Your task to perform on an android device: turn off priority inbox in the gmail app Image 0: 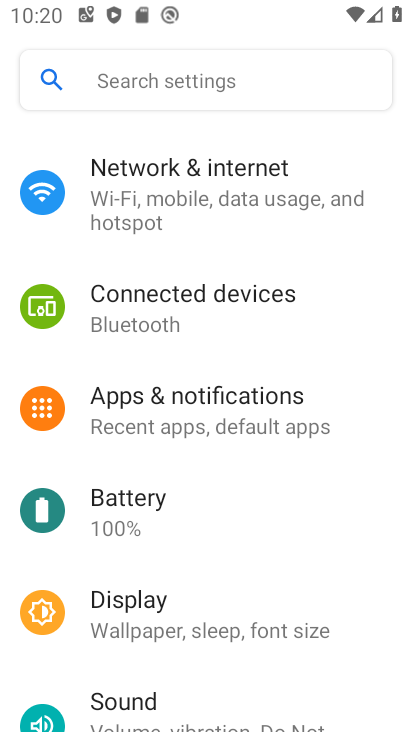
Step 0: press home button
Your task to perform on an android device: turn off priority inbox in the gmail app Image 1: 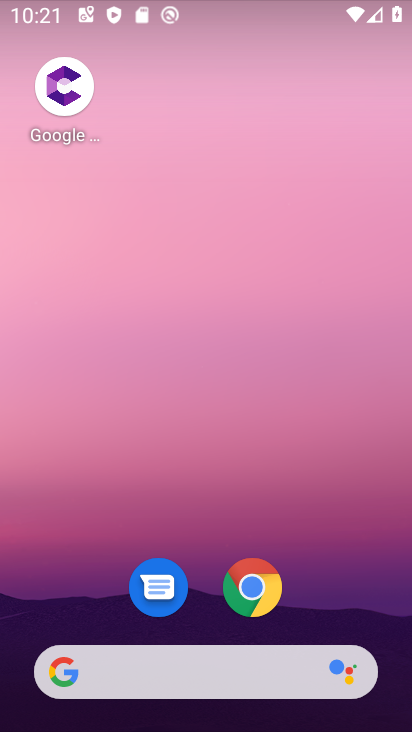
Step 1: drag from (272, 677) to (165, 189)
Your task to perform on an android device: turn off priority inbox in the gmail app Image 2: 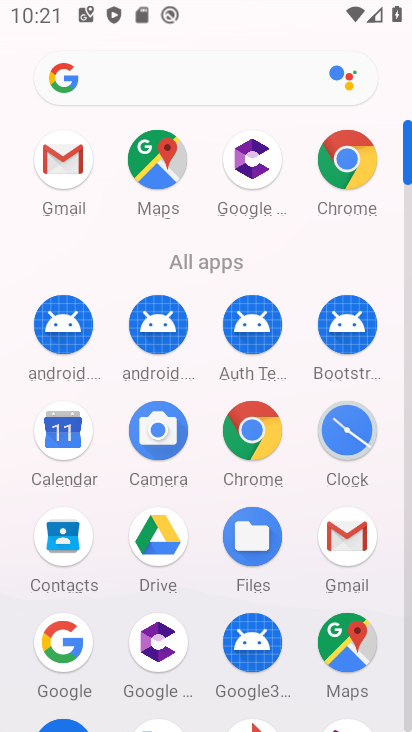
Step 2: click (59, 157)
Your task to perform on an android device: turn off priority inbox in the gmail app Image 3: 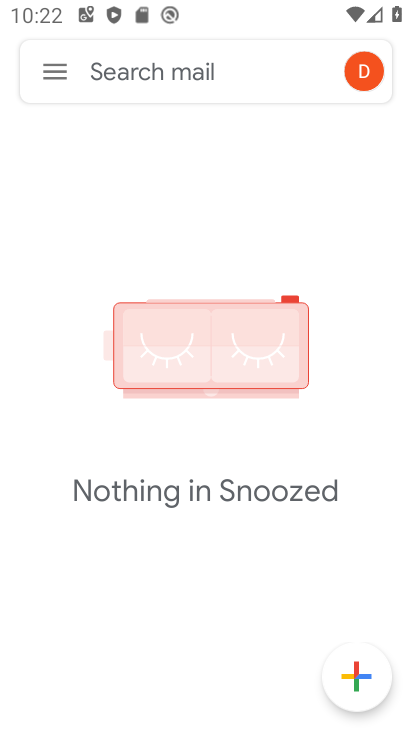
Step 3: click (49, 76)
Your task to perform on an android device: turn off priority inbox in the gmail app Image 4: 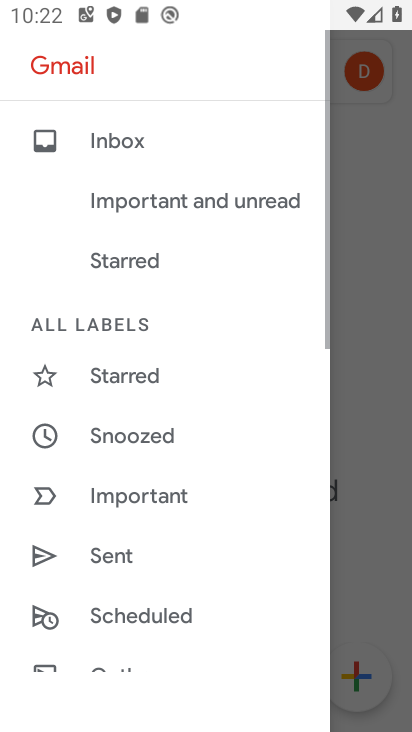
Step 4: drag from (150, 618) to (170, 475)
Your task to perform on an android device: turn off priority inbox in the gmail app Image 5: 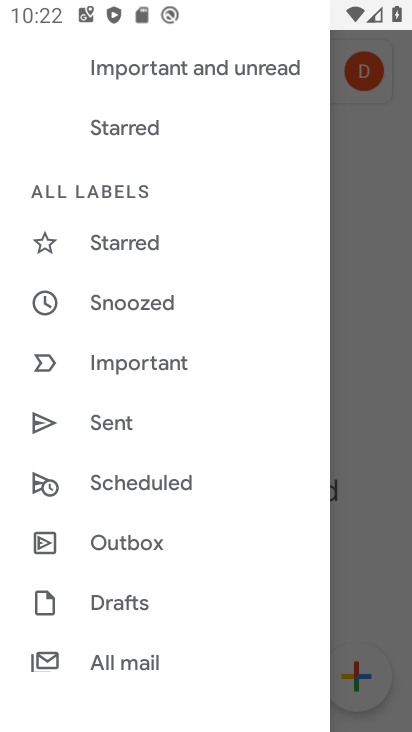
Step 5: drag from (114, 615) to (174, 250)
Your task to perform on an android device: turn off priority inbox in the gmail app Image 6: 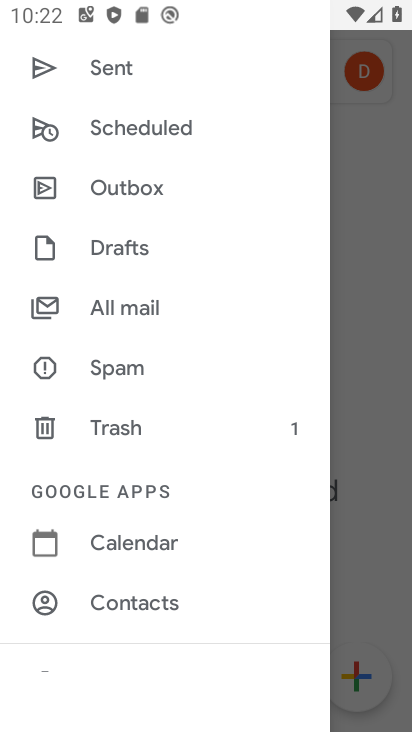
Step 6: drag from (121, 583) to (166, 468)
Your task to perform on an android device: turn off priority inbox in the gmail app Image 7: 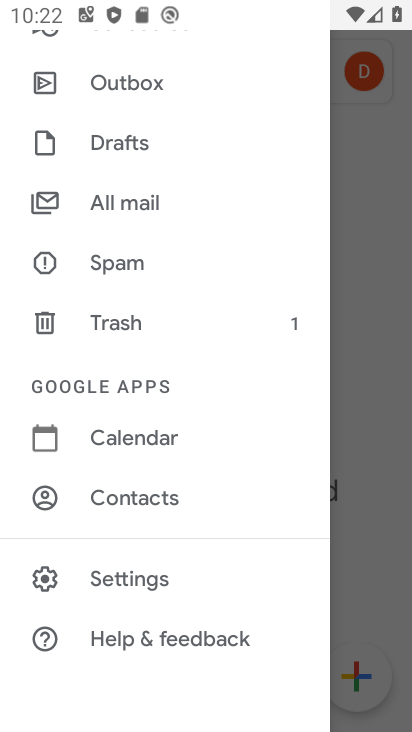
Step 7: click (124, 583)
Your task to perform on an android device: turn off priority inbox in the gmail app Image 8: 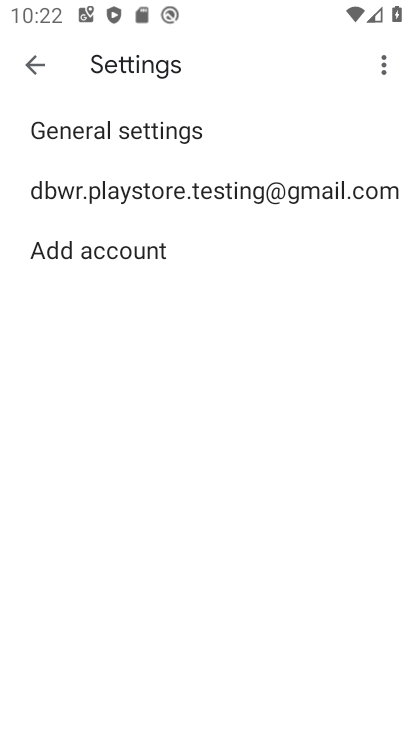
Step 8: click (154, 223)
Your task to perform on an android device: turn off priority inbox in the gmail app Image 9: 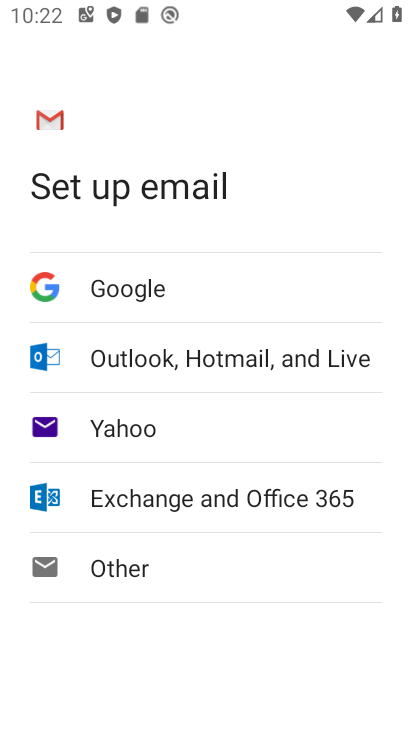
Step 9: press back button
Your task to perform on an android device: turn off priority inbox in the gmail app Image 10: 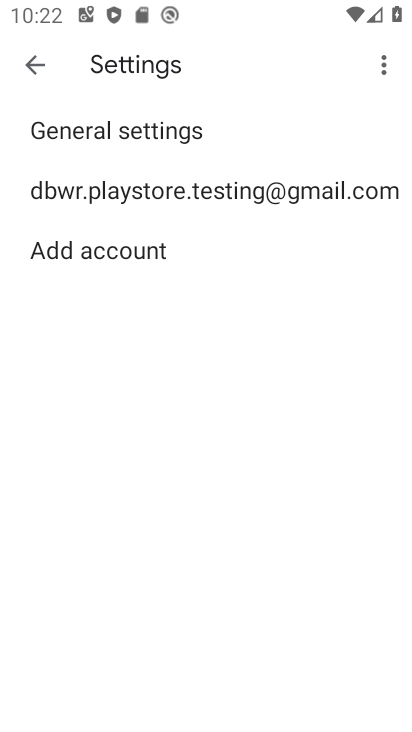
Step 10: click (192, 187)
Your task to perform on an android device: turn off priority inbox in the gmail app Image 11: 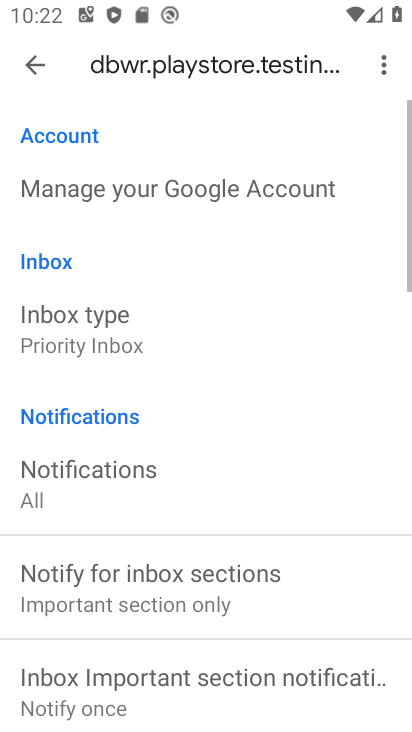
Step 11: click (108, 348)
Your task to perform on an android device: turn off priority inbox in the gmail app Image 12: 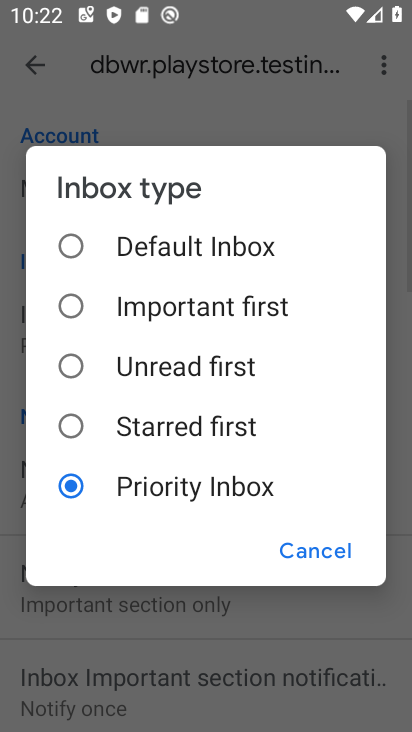
Step 12: click (149, 240)
Your task to perform on an android device: turn off priority inbox in the gmail app Image 13: 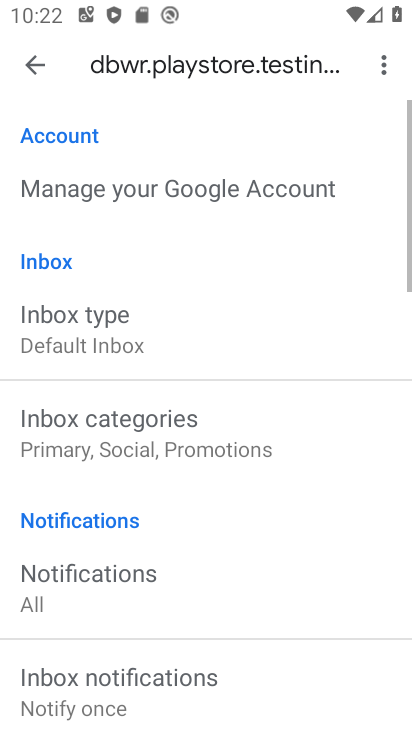
Step 13: task complete